Your task to perform on an android device: check battery use Image 0: 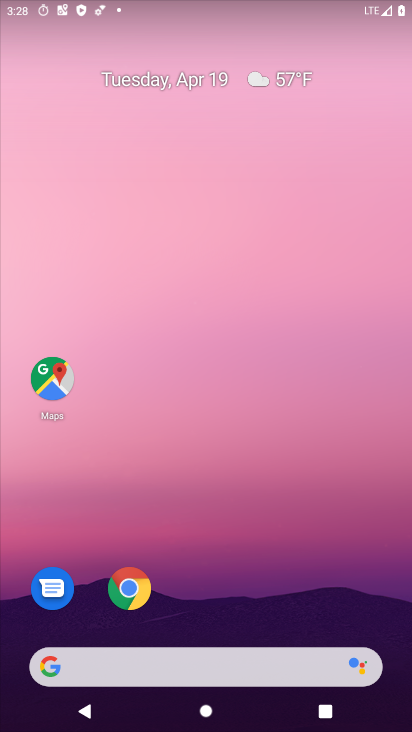
Step 0: click (331, 76)
Your task to perform on an android device: check battery use Image 1: 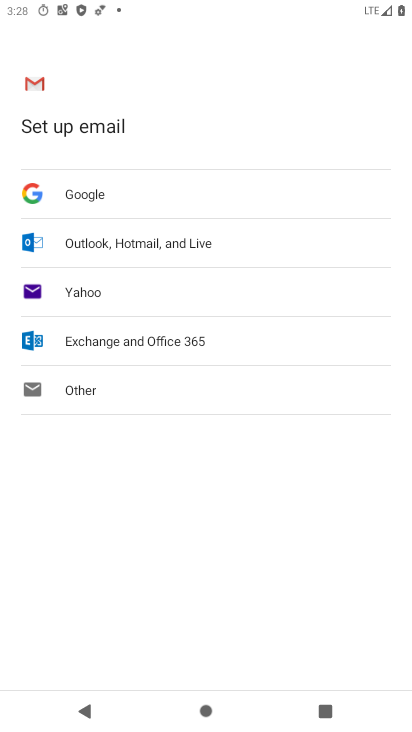
Step 1: press home button
Your task to perform on an android device: check battery use Image 2: 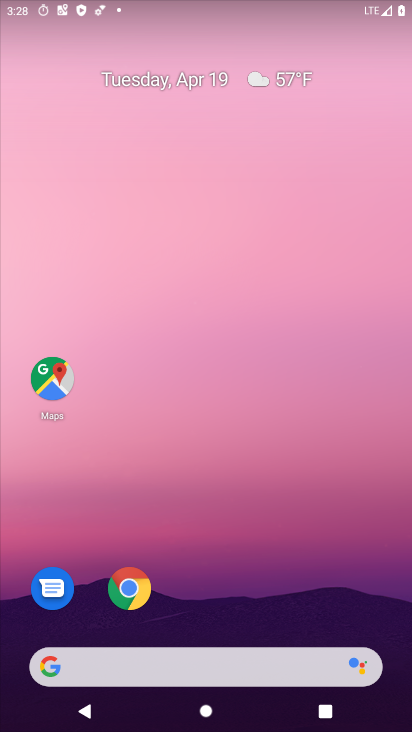
Step 2: drag from (209, 573) to (318, 68)
Your task to perform on an android device: check battery use Image 3: 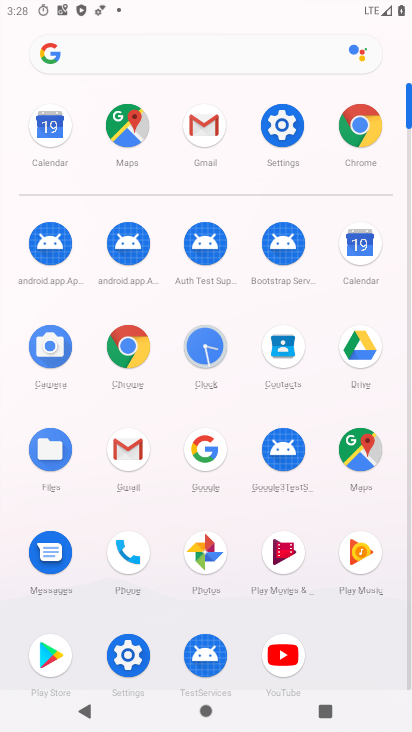
Step 3: click (291, 132)
Your task to perform on an android device: check battery use Image 4: 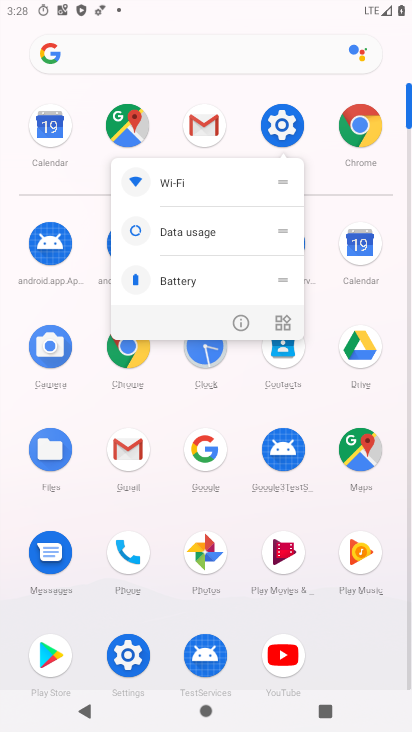
Step 4: click (236, 323)
Your task to perform on an android device: check battery use Image 5: 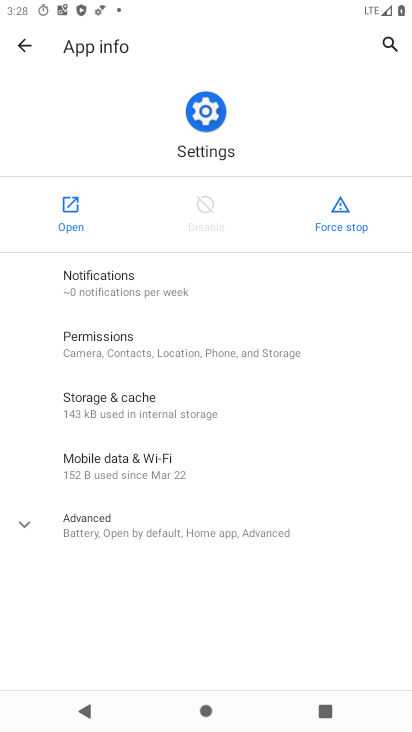
Step 5: click (70, 218)
Your task to perform on an android device: check battery use Image 6: 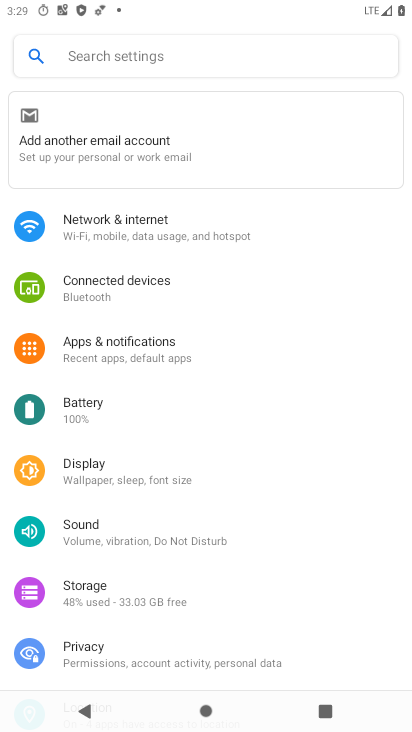
Step 6: click (95, 413)
Your task to perform on an android device: check battery use Image 7: 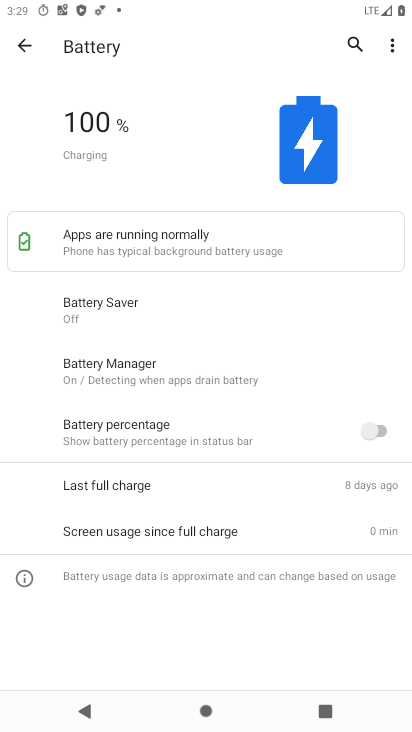
Step 7: click (395, 41)
Your task to perform on an android device: check battery use Image 8: 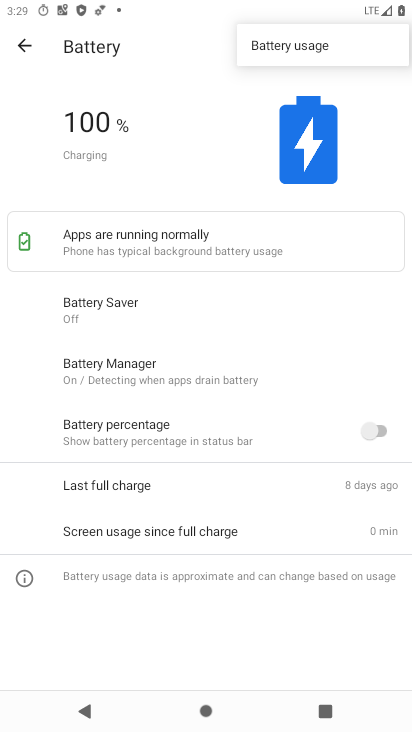
Step 8: click (323, 48)
Your task to perform on an android device: check battery use Image 9: 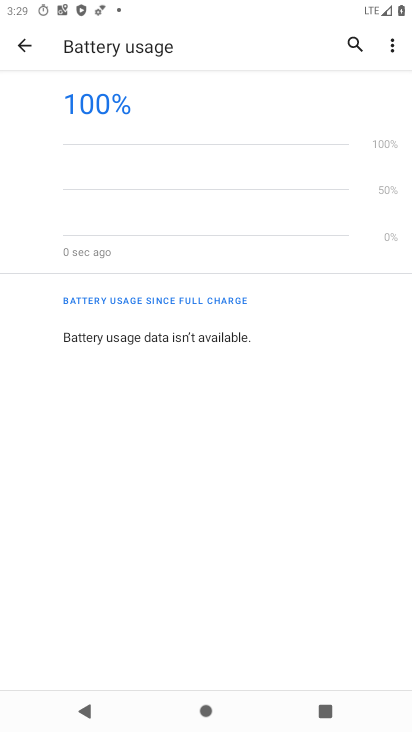
Step 9: task complete